Your task to perform on an android device: choose inbox layout in the gmail app Image 0: 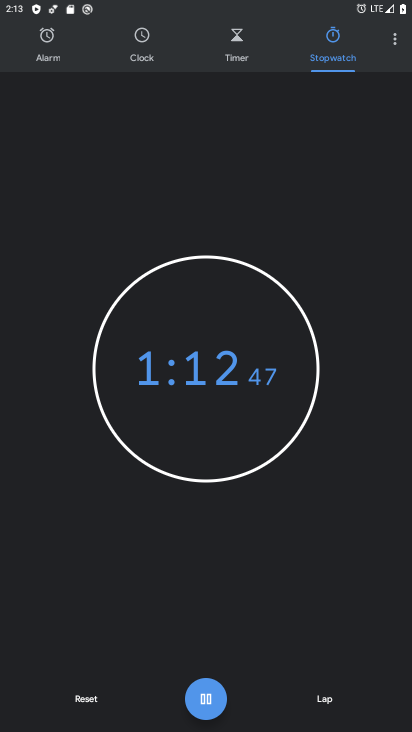
Step 0: press home button
Your task to perform on an android device: choose inbox layout in the gmail app Image 1: 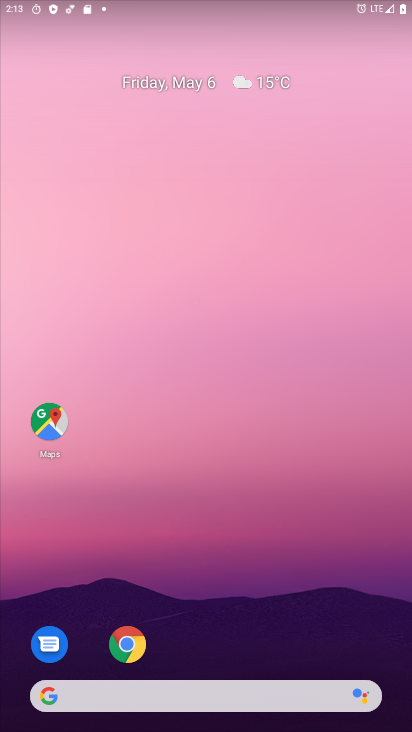
Step 1: drag from (226, 634) to (219, 136)
Your task to perform on an android device: choose inbox layout in the gmail app Image 2: 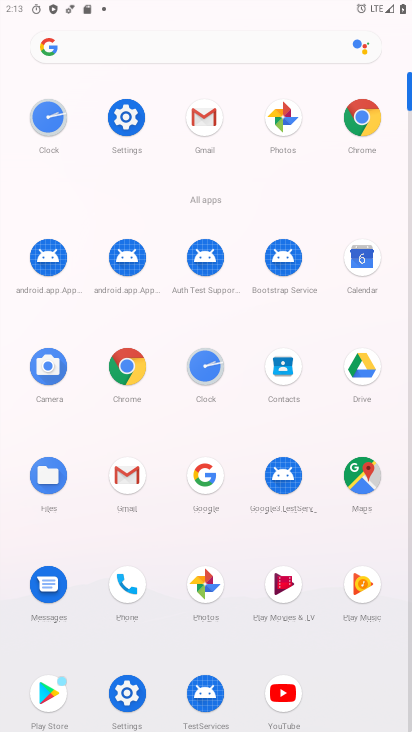
Step 2: click (203, 120)
Your task to perform on an android device: choose inbox layout in the gmail app Image 3: 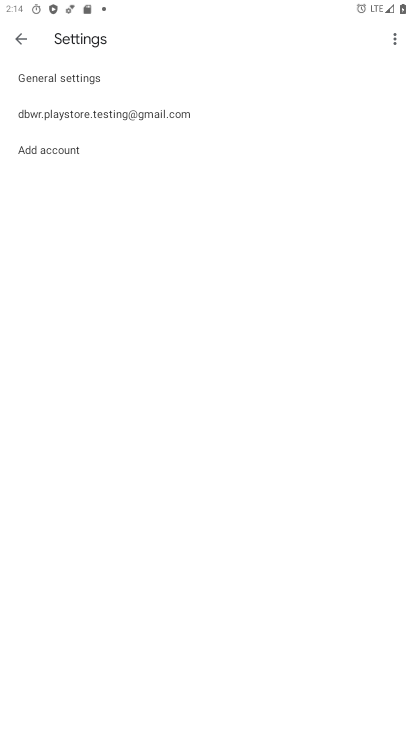
Step 3: click (203, 120)
Your task to perform on an android device: choose inbox layout in the gmail app Image 4: 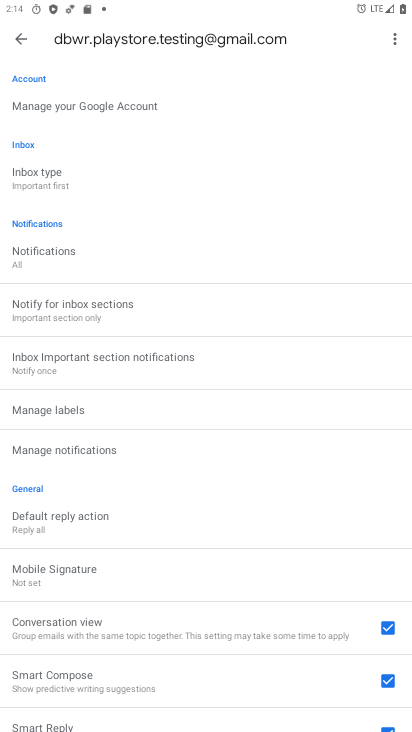
Step 4: click (145, 184)
Your task to perform on an android device: choose inbox layout in the gmail app Image 5: 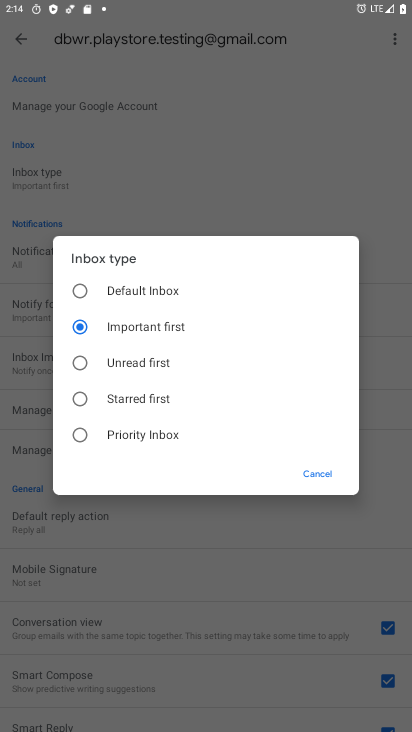
Step 5: click (146, 367)
Your task to perform on an android device: choose inbox layout in the gmail app Image 6: 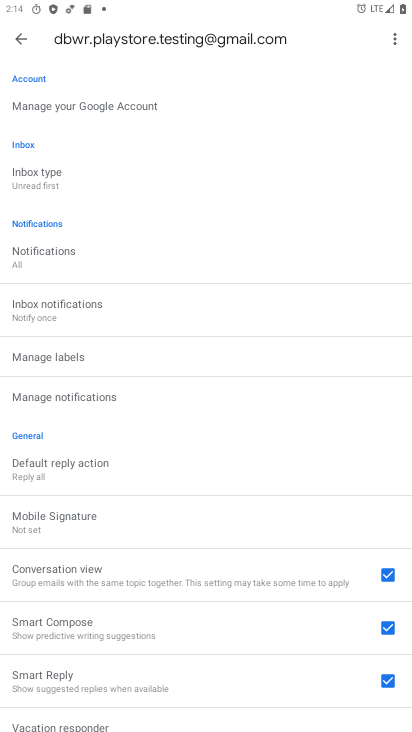
Step 6: task complete